Your task to perform on an android device: stop showing notifications on the lock screen Image 0: 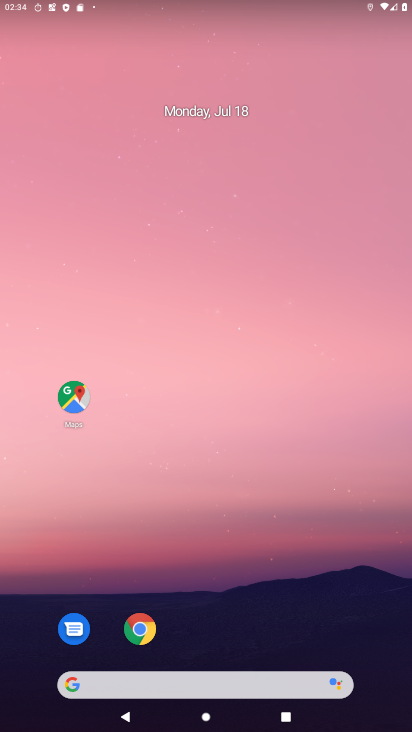
Step 0: press home button
Your task to perform on an android device: stop showing notifications on the lock screen Image 1: 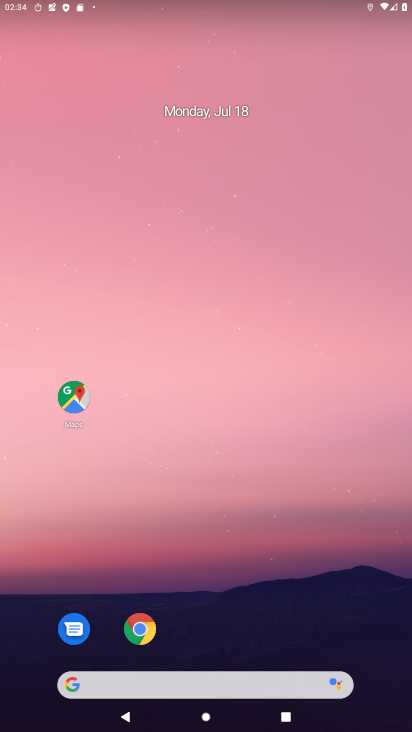
Step 1: drag from (214, 646) to (230, 16)
Your task to perform on an android device: stop showing notifications on the lock screen Image 2: 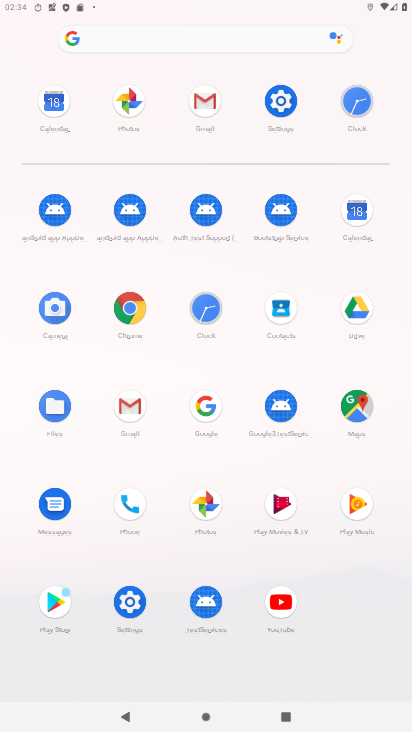
Step 2: click (277, 95)
Your task to perform on an android device: stop showing notifications on the lock screen Image 3: 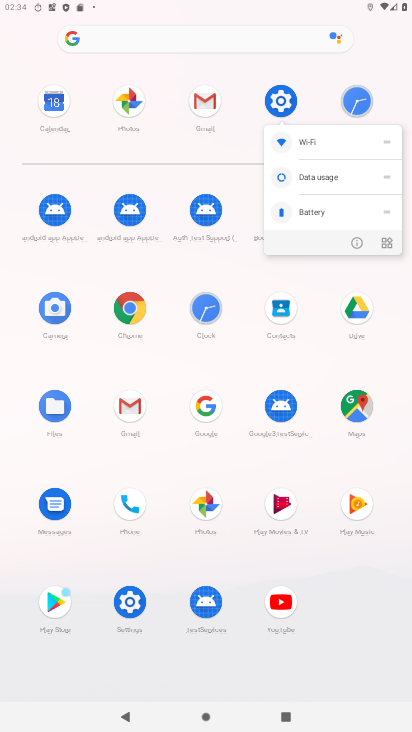
Step 3: click (279, 93)
Your task to perform on an android device: stop showing notifications on the lock screen Image 4: 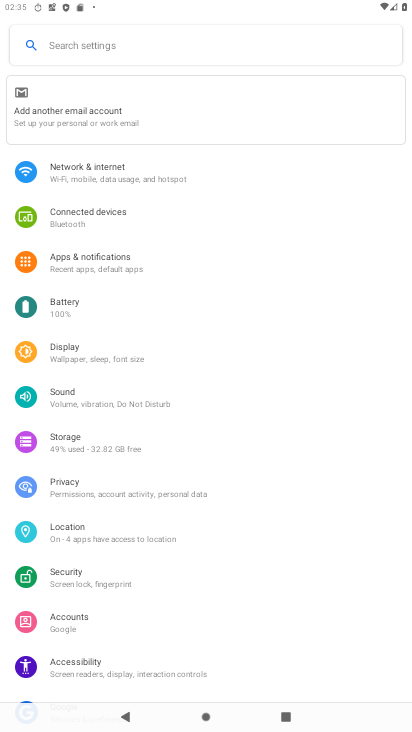
Step 4: click (119, 253)
Your task to perform on an android device: stop showing notifications on the lock screen Image 5: 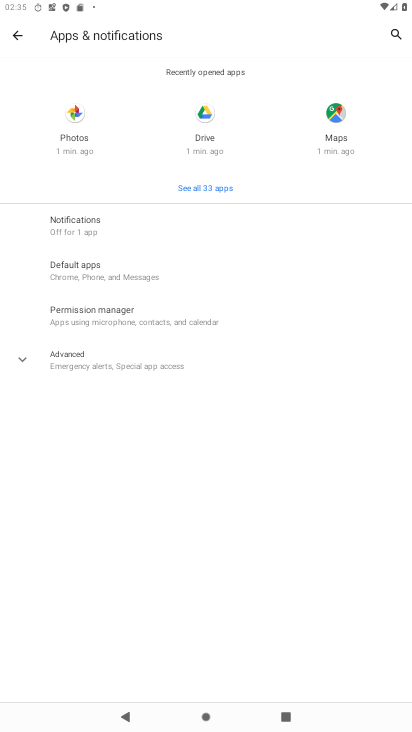
Step 5: click (108, 226)
Your task to perform on an android device: stop showing notifications on the lock screen Image 6: 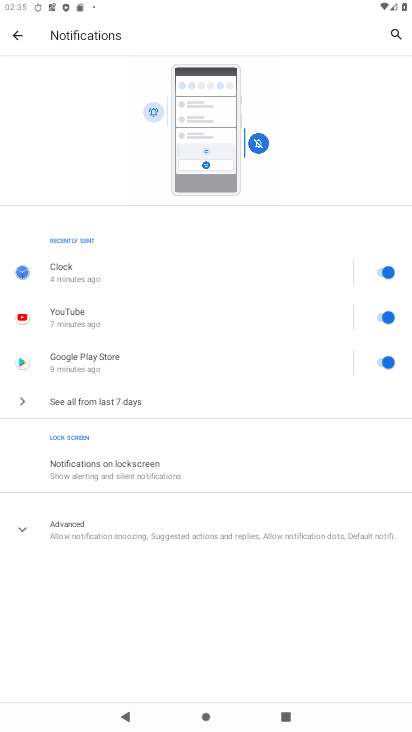
Step 6: click (123, 467)
Your task to perform on an android device: stop showing notifications on the lock screen Image 7: 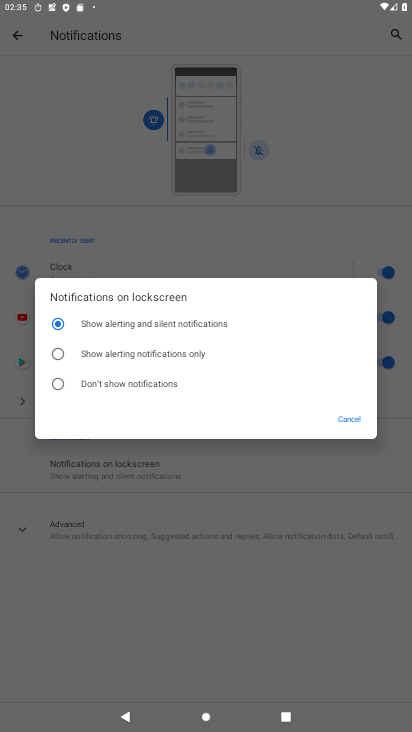
Step 7: click (56, 381)
Your task to perform on an android device: stop showing notifications on the lock screen Image 8: 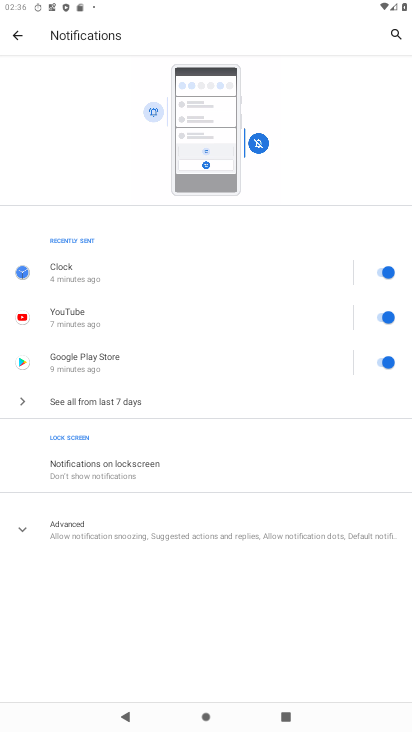
Step 8: task complete